Your task to perform on an android device: Show me recent news Image 0: 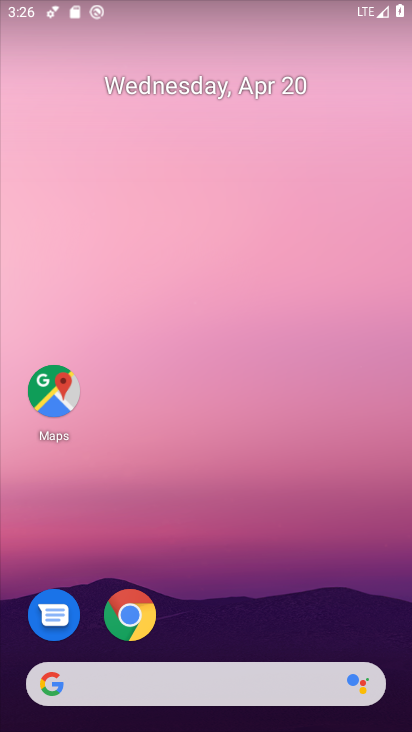
Step 0: drag from (217, 614) to (238, 197)
Your task to perform on an android device: Show me recent news Image 1: 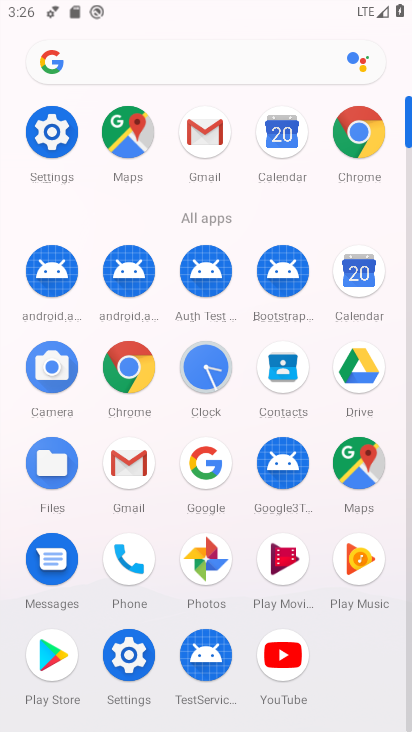
Step 1: click (193, 473)
Your task to perform on an android device: Show me recent news Image 2: 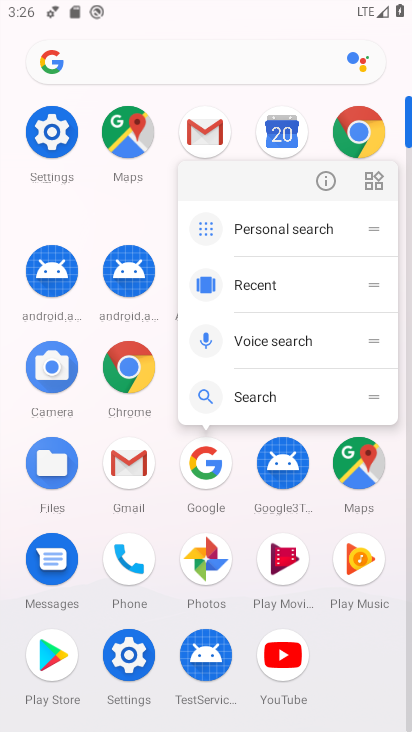
Step 2: click (193, 473)
Your task to perform on an android device: Show me recent news Image 3: 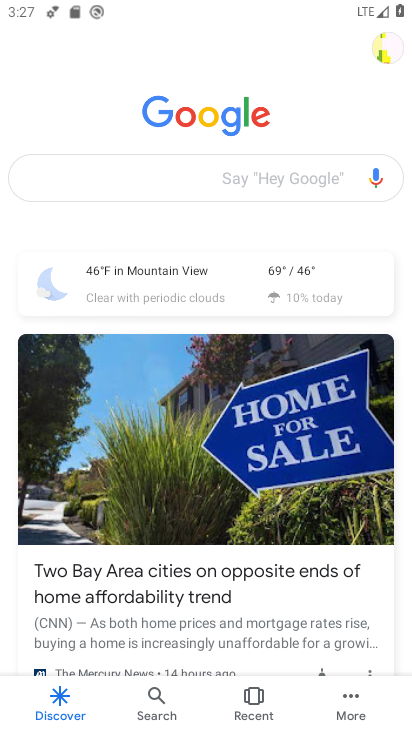
Step 3: task complete